Your task to perform on an android device: Clear all items from cart on bestbuy.com. Image 0: 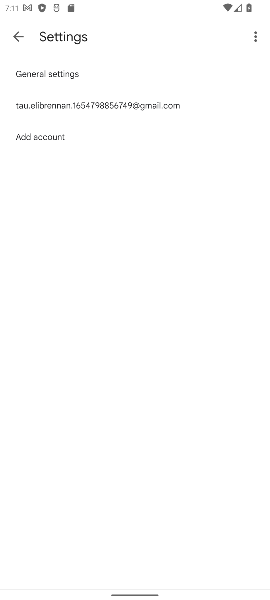
Step 0: press home button
Your task to perform on an android device: Clear all items from cart on bestbuy.com. Image 1: 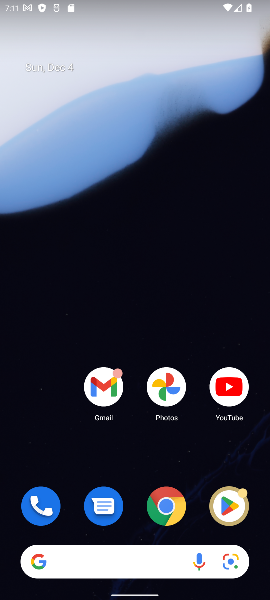
Step 1: click (175, 499)
Your task to perform on an android device: Clear all items from cart on bestbuy.com. Image 2: 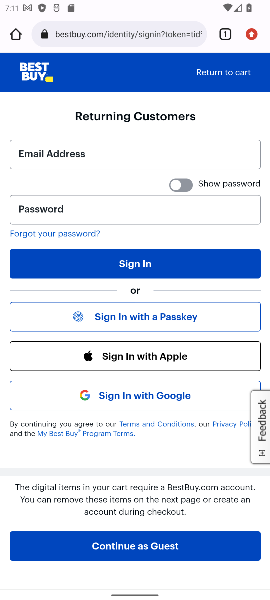
Step 2: click (229, 82)
Your task to perform on an android device: Clear all items from cart on bestbuy.com. Image 3: 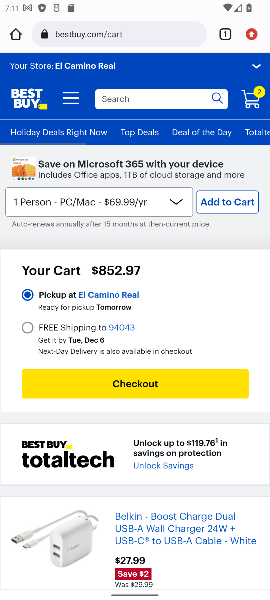
Step 3: drag from (94, 417) to (96, 118)
Your task to perform on an android device: Clear all items from cart on bestbuy.com. Image 4: 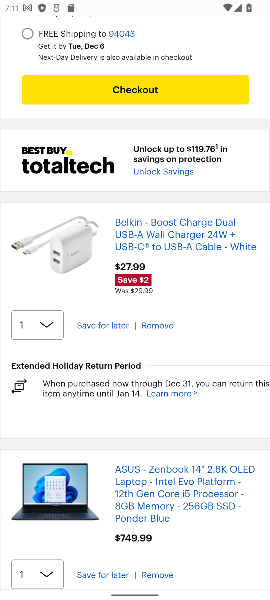
Step 4: click (163, 328)
Your task to perform on an android device: Clear all items from cart on bestbuy.com. Image 5: 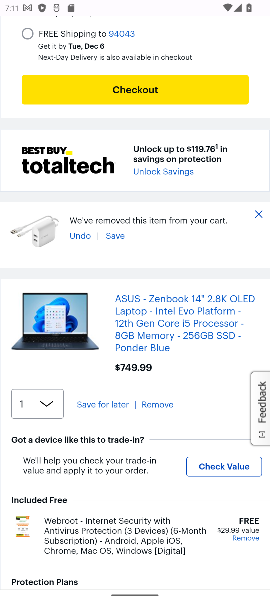
Step 5: click (152, 402)
Your task to perform on an android device: Clear all items from cart on bestbuy.com. Image 6: 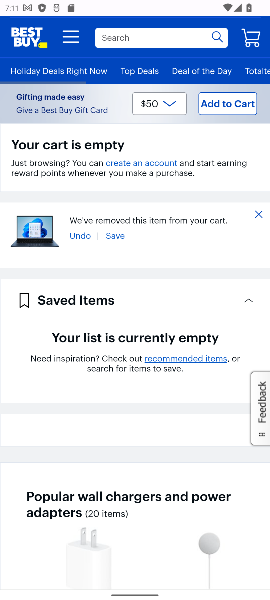
Step 6: task complete